Your task to perform on an android device: What's a good restaurant near me? Image 0: 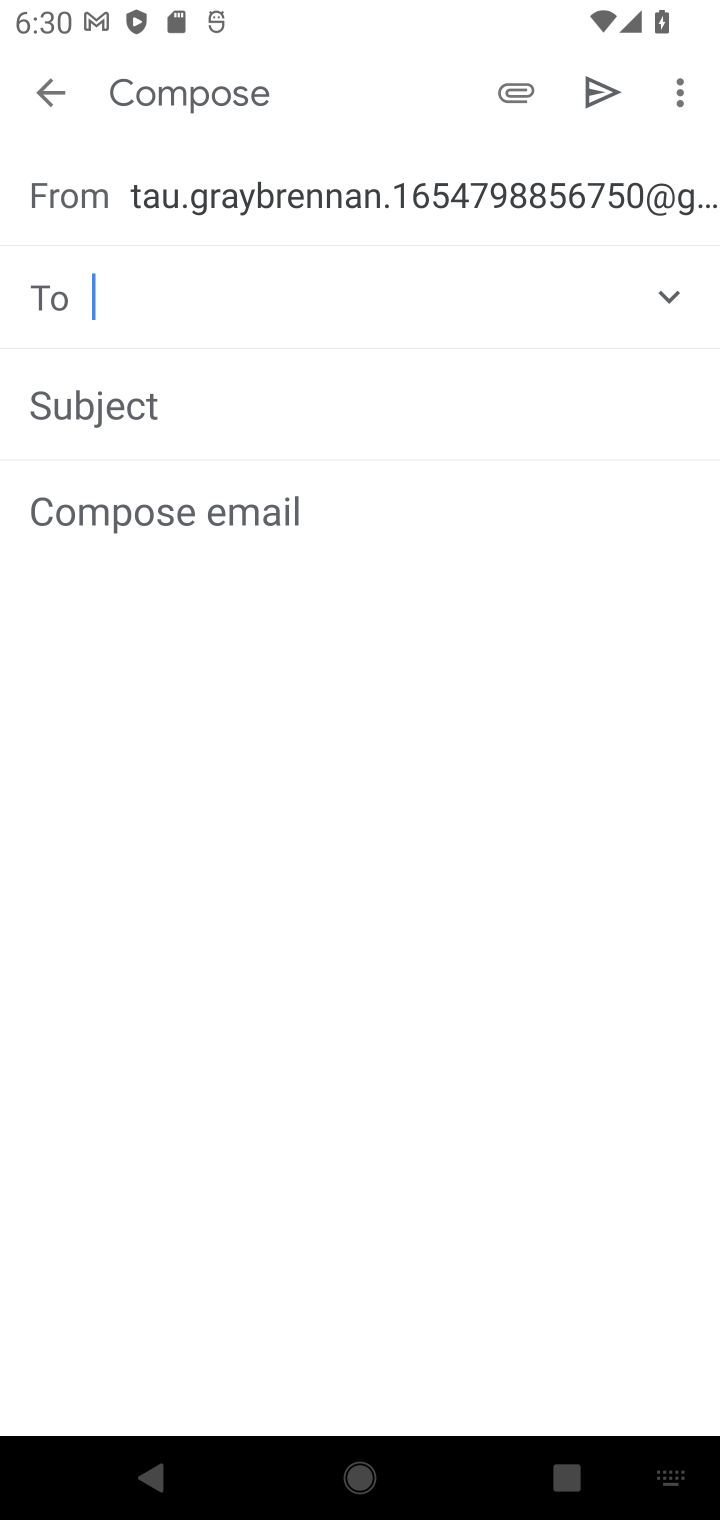
Step 0: press back button
Your task to perform on an android device: What's a good restaurant near me? Image 1: 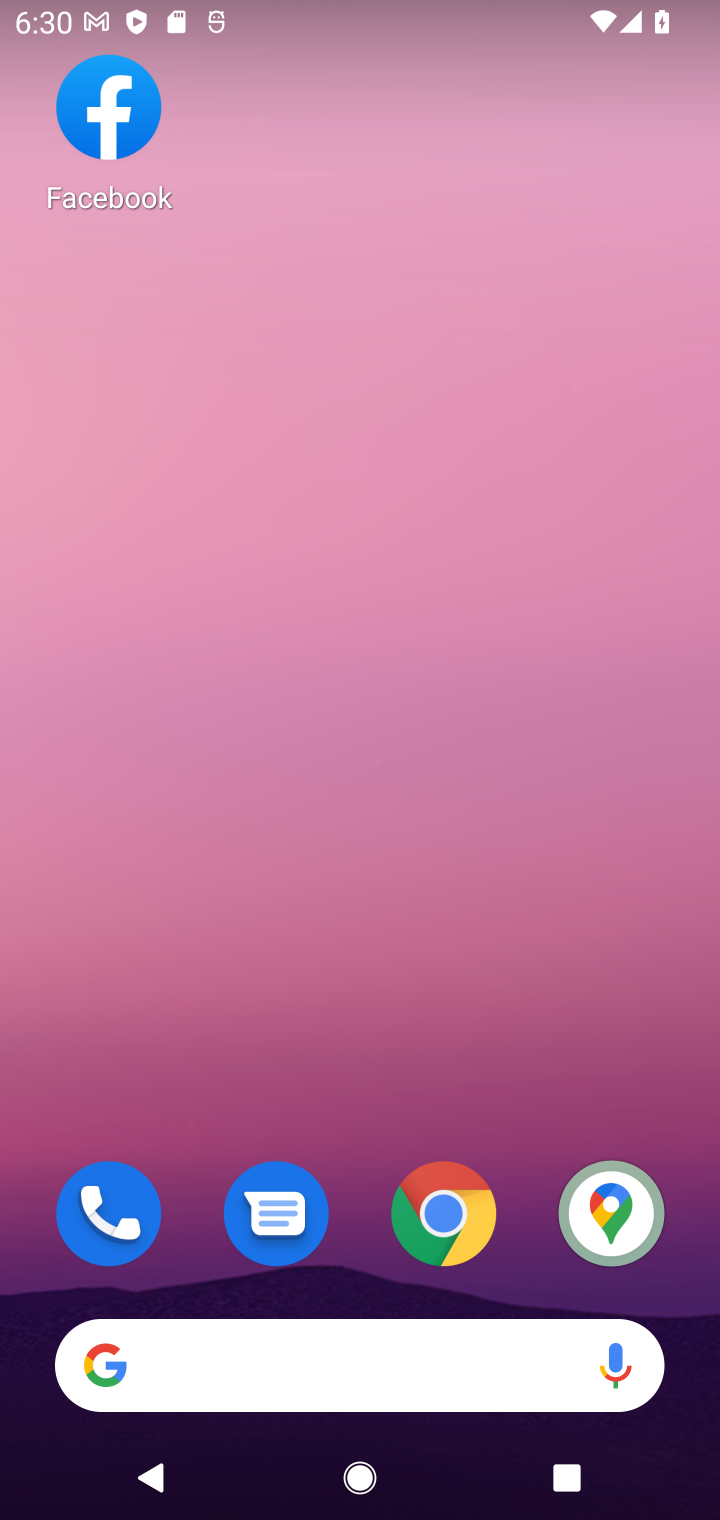
Step 1: drag from (502, 1280) to (302, 467)
Your task to perform on an android device: What's a good restaurant near me? Image 2: 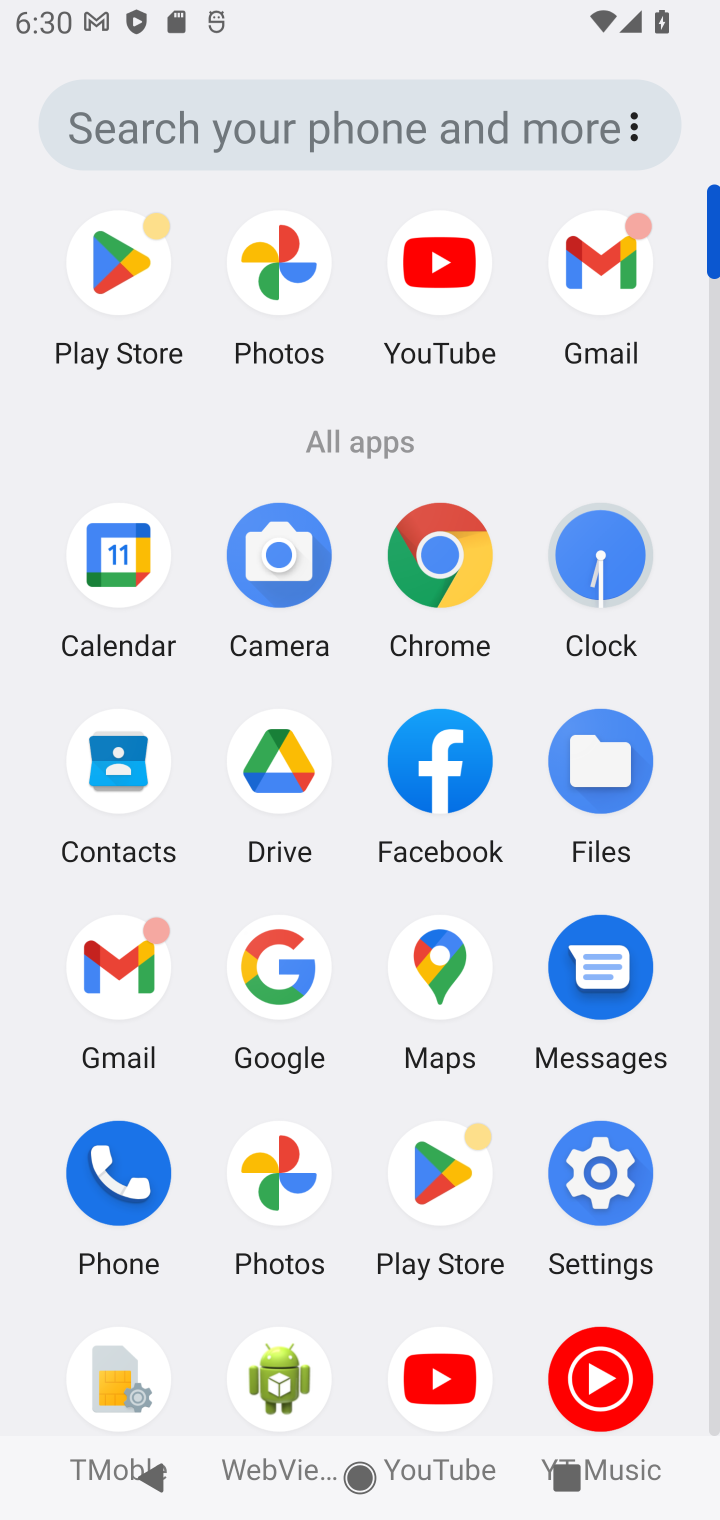
Step 2: click (277, 971)
Your task to perform on an android device: What's a good restaurant near me? Image 3: 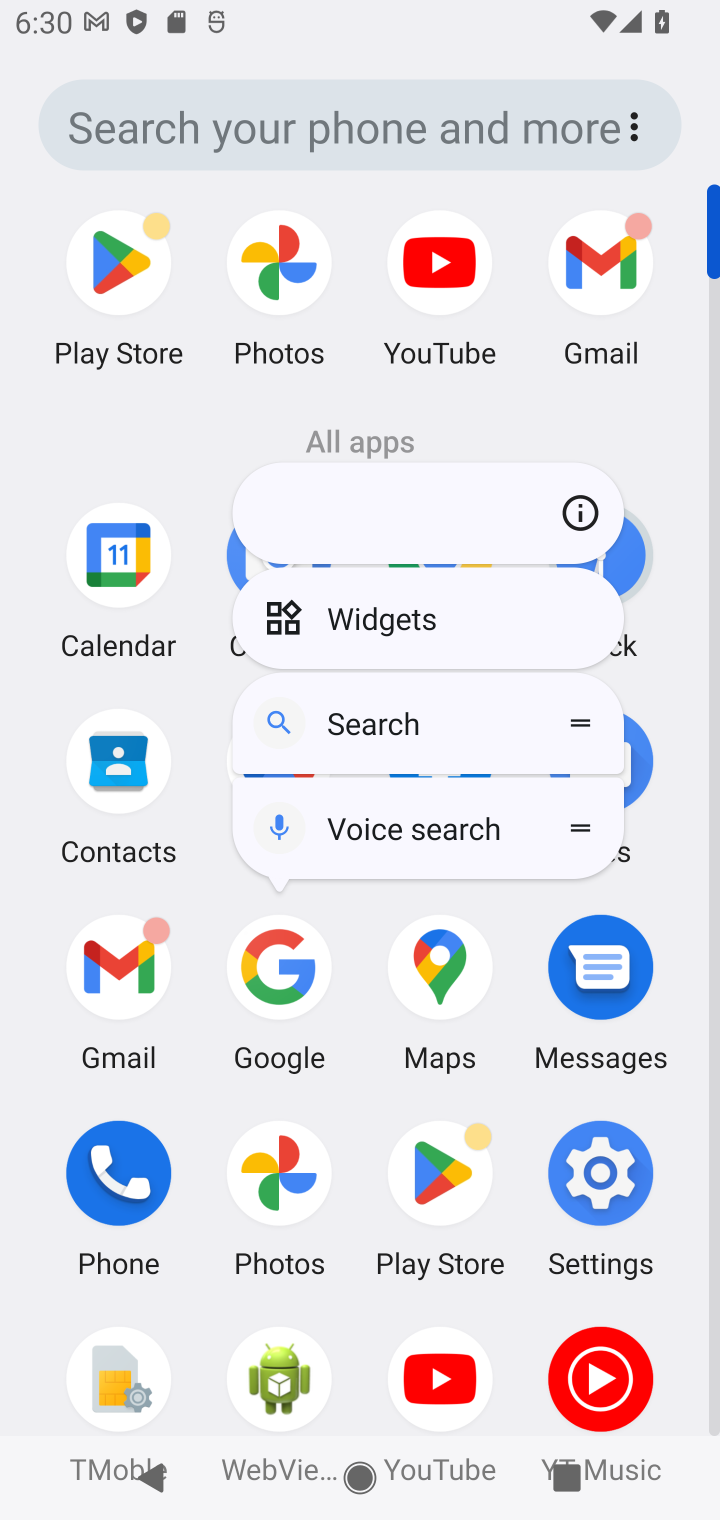
Step 3: click (280, 968)
Your task to perform on an android device: What's a good restaurant near me? Image 4: 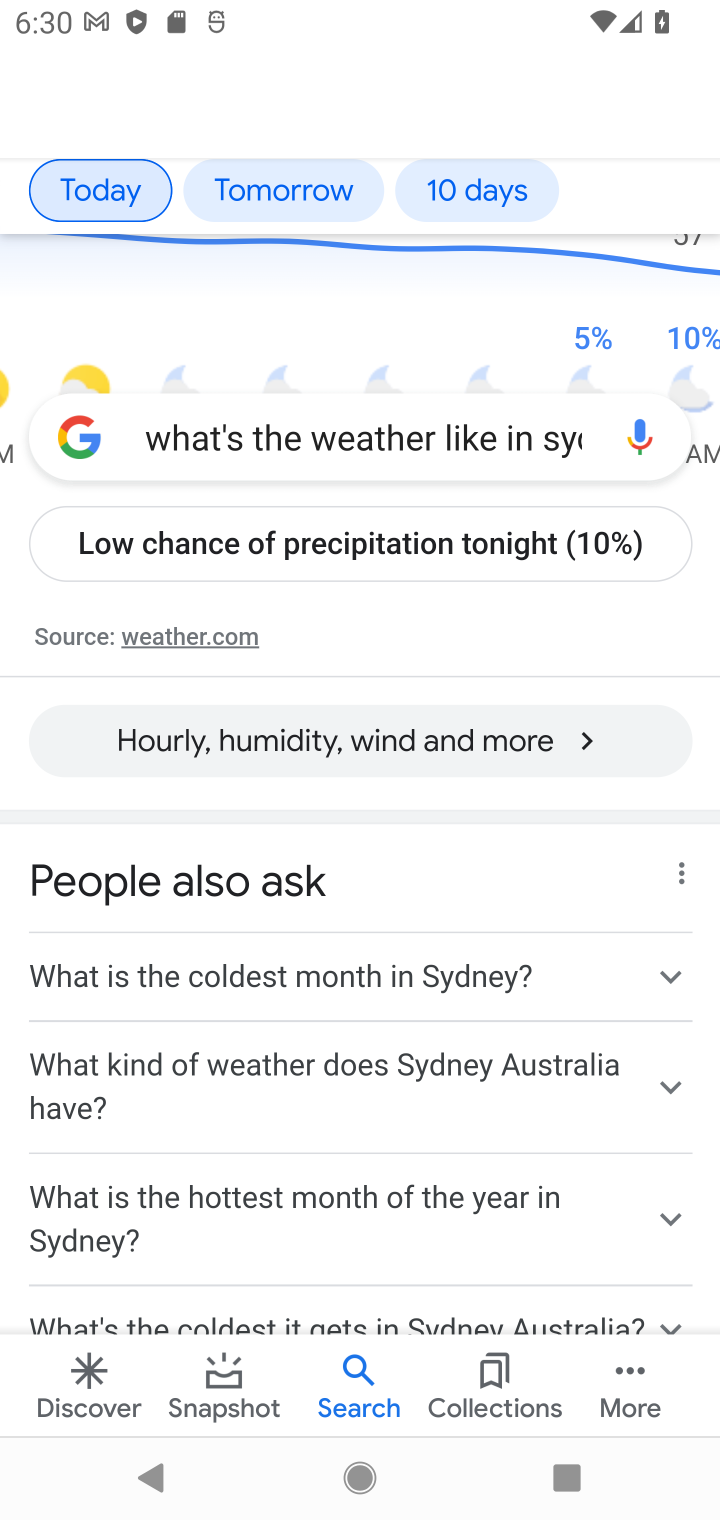
Step 4: click (333, 436)
Your task to perform on an android device: What's a good restaurant near me? Image 5: 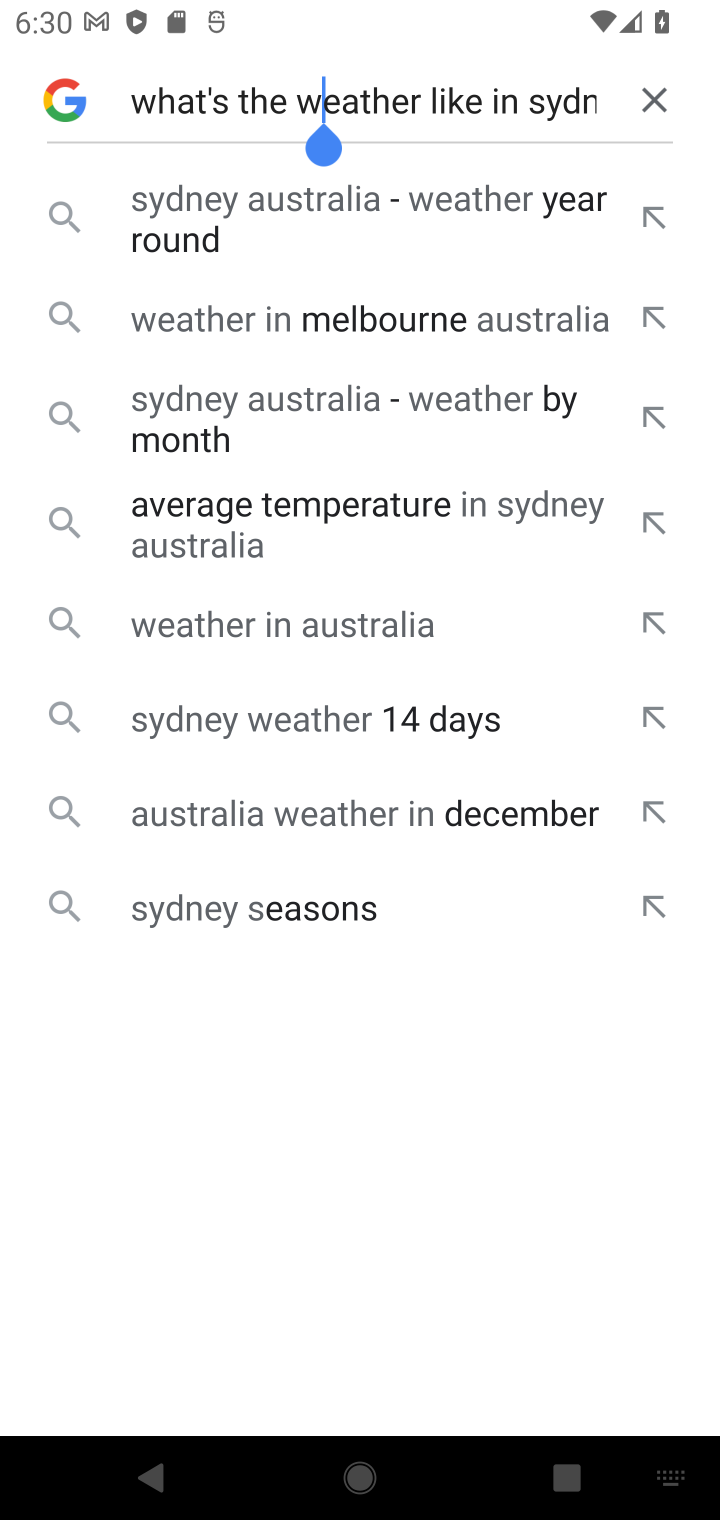
Step 5: click (642, 92)
Your task to perform on an android device: What's a good restaurant near me? Image 6: 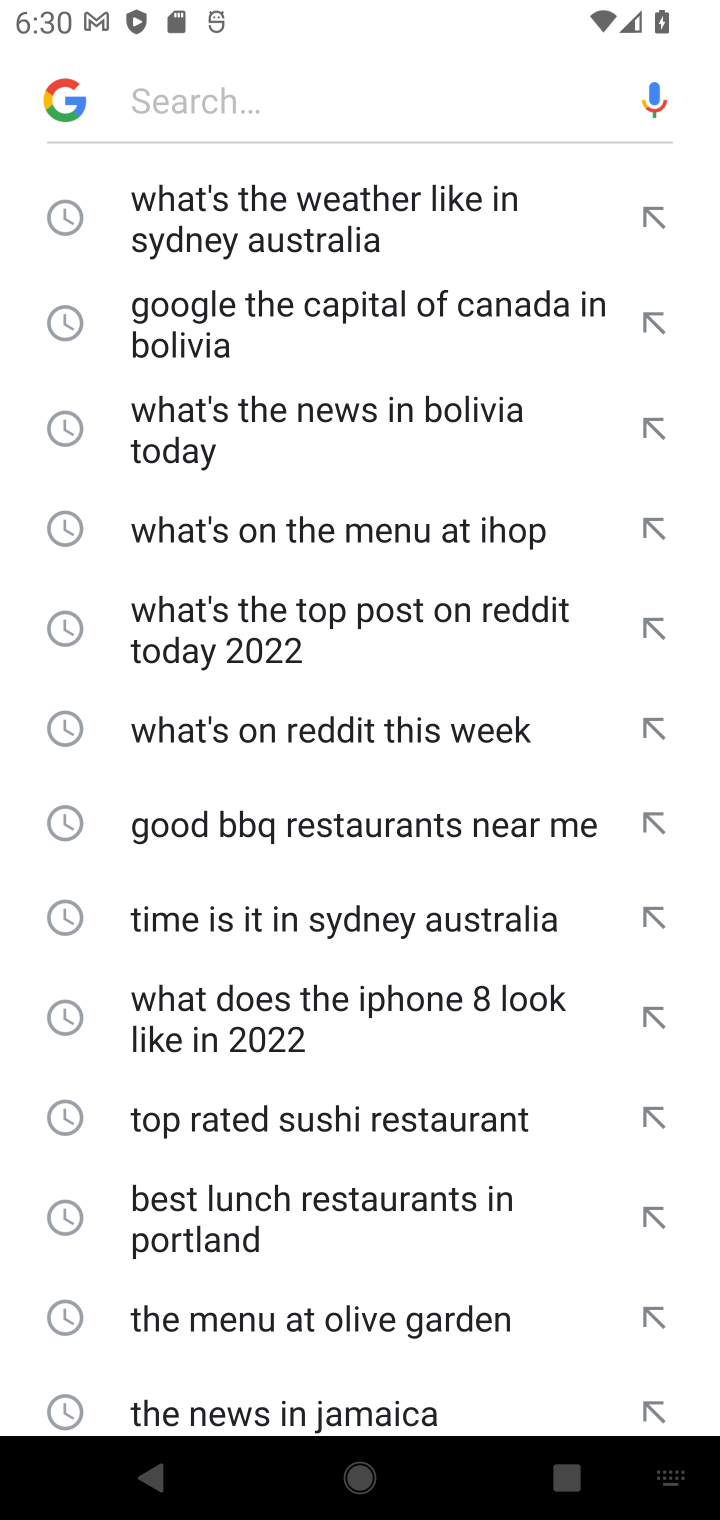
Step 6: click (313, 72)
Your task to perform on an android device: What's a good restaurant near me? Image 7: 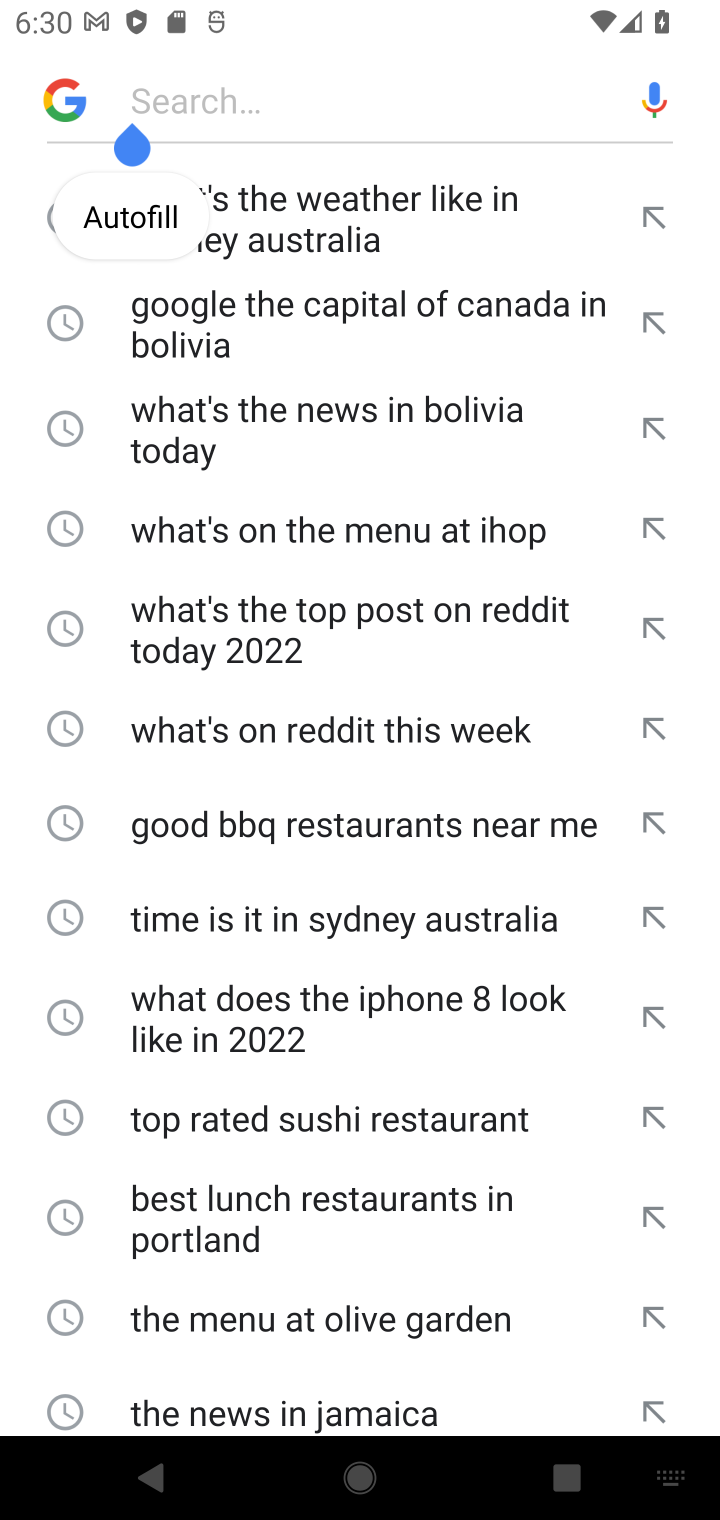
Step 7: type "What's a good restaurant near me? "
Your task to perform on an android device: What's a good restaurant near me? Image 8: 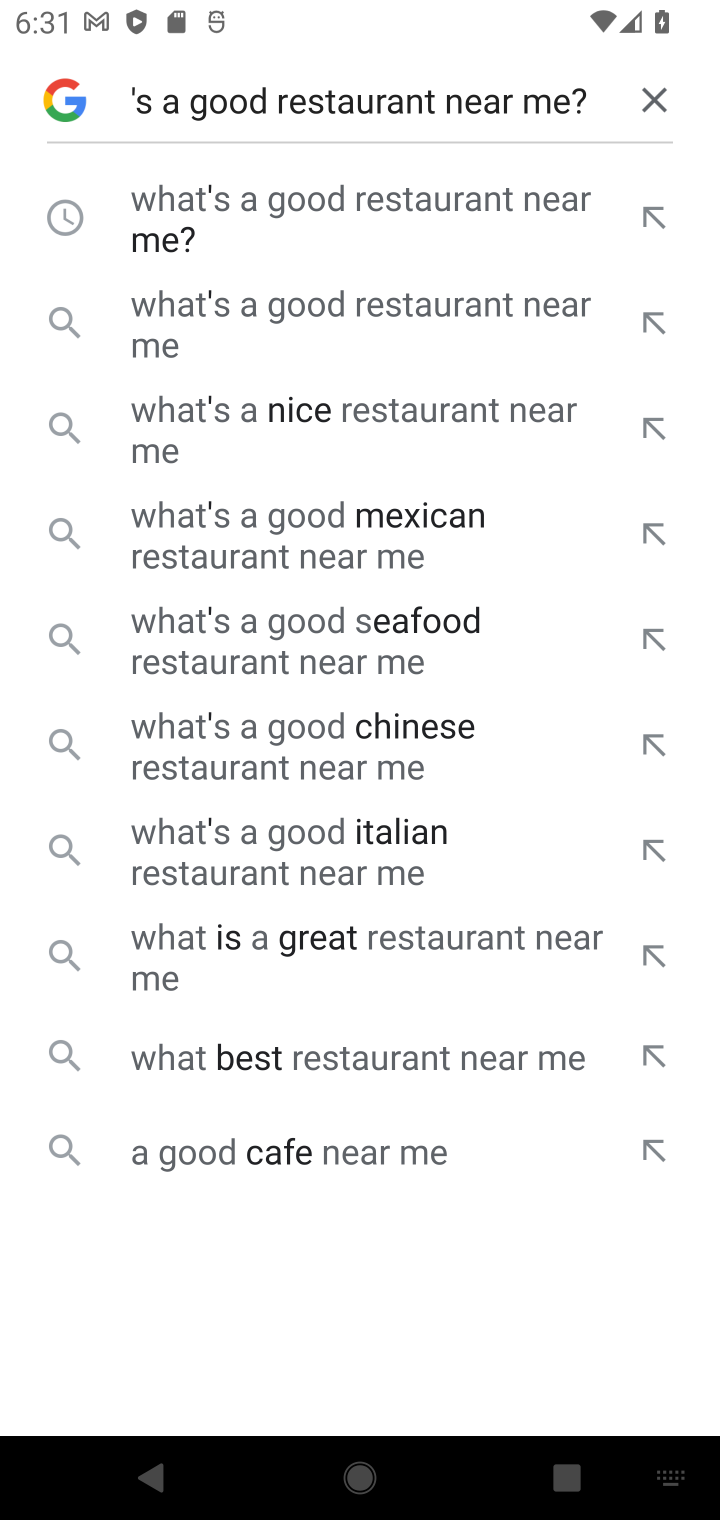
Step 8: click (282, 216)
Your task to perform on an android device: What's a good restaurant near me? Image 9: 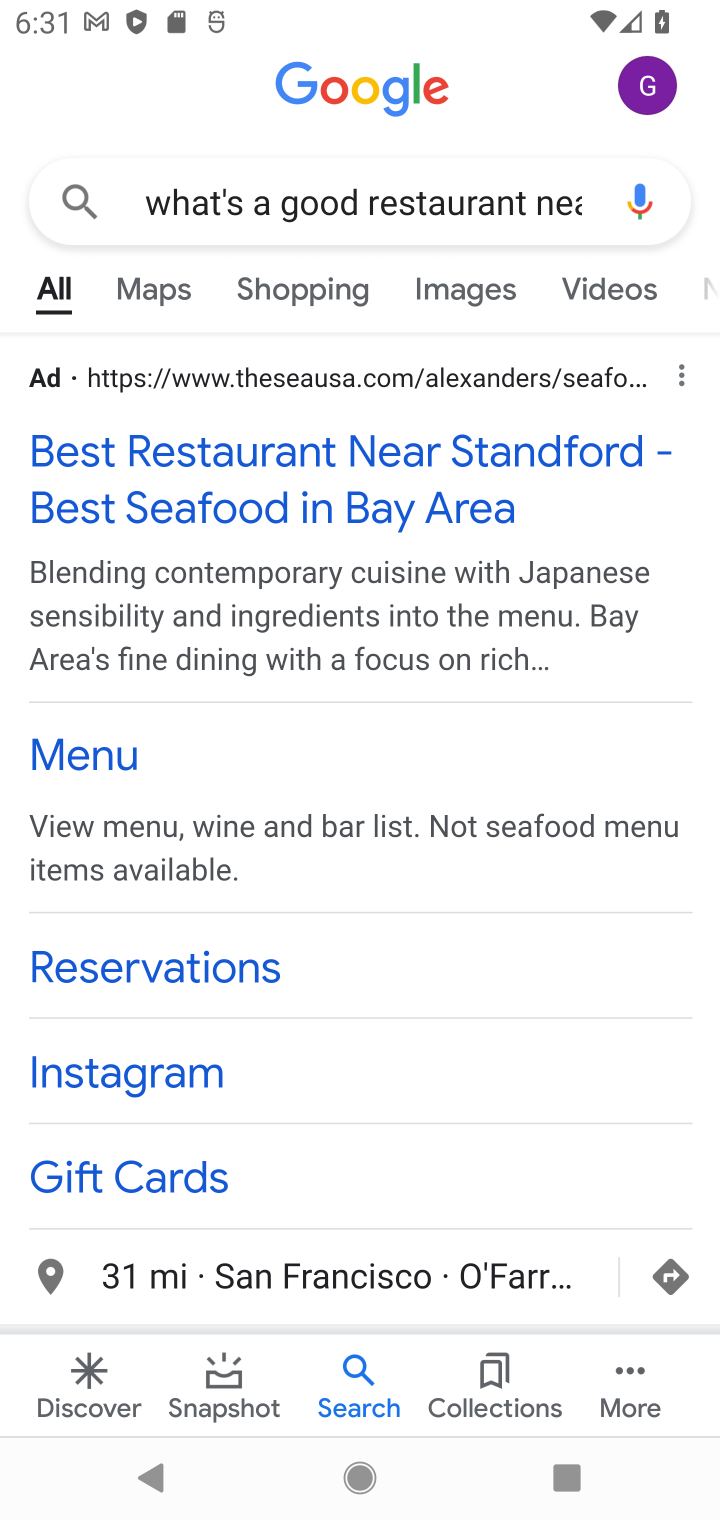
Step 9: click (388, 452)
Your task to perform on an android device: What's a good restaurant near me? Image 10: 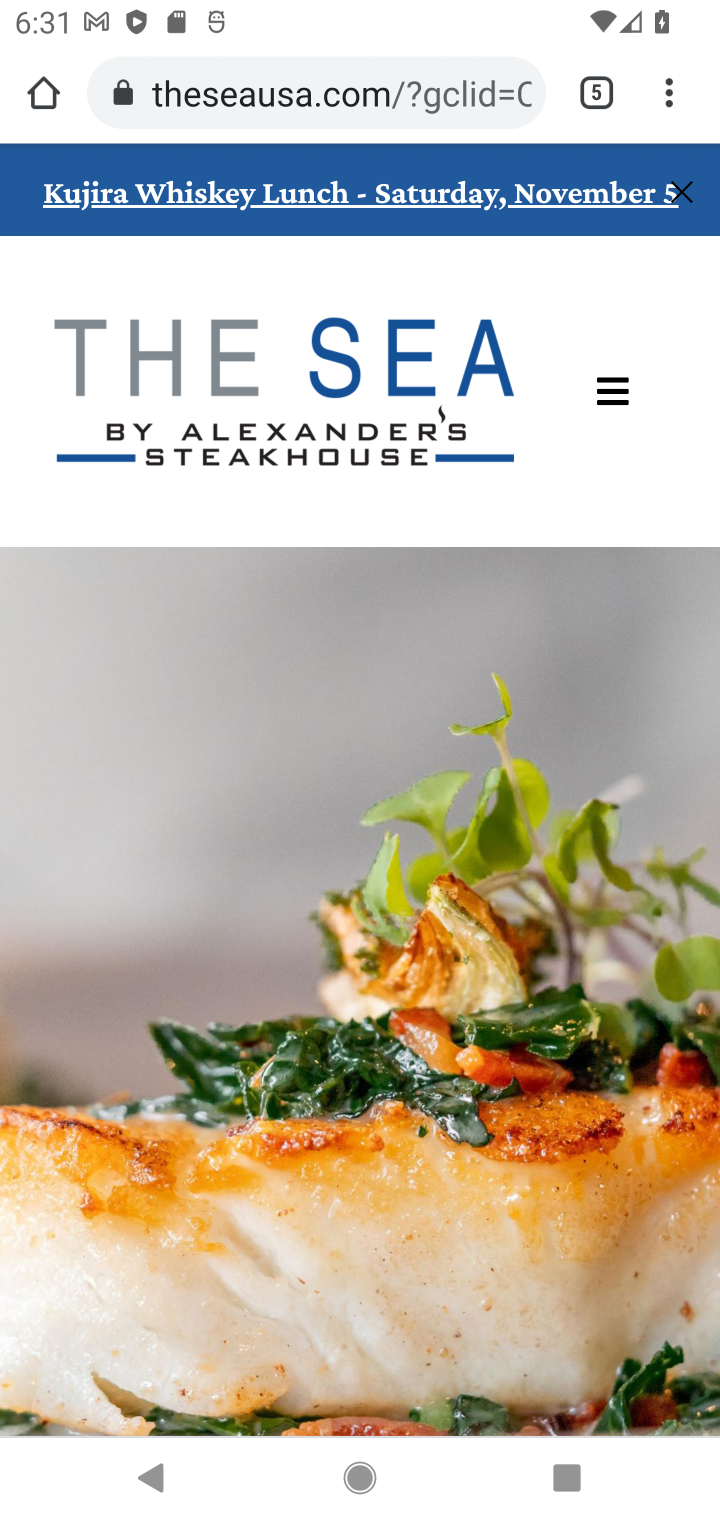
Step 10: task complete